Your task to perform on an android device: find which apps use the phone's location Image 0: 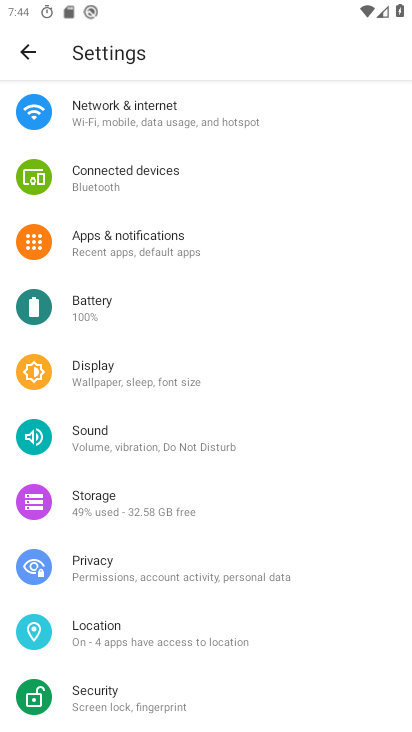
Step 0: press home button
Your task to perform on an android device: find which apps use the phone's location Image 1: 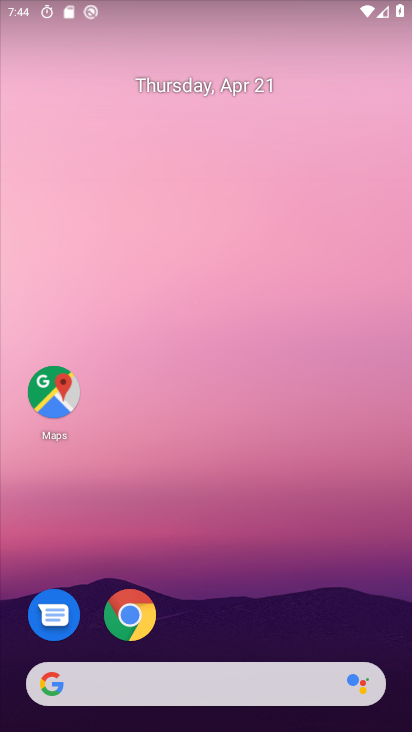
Step 1: drag from (136, 679) to (219, 78)
Your task to perform on an android device: find which apps use the phone's location Image 2: 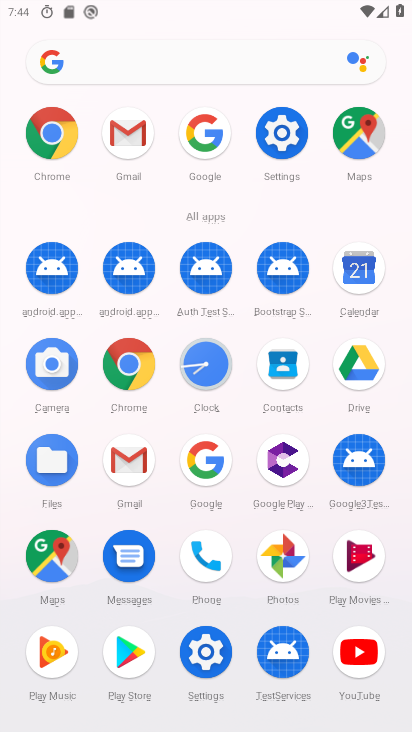
Step 2: click (276, 140)
Your task to perform on an android device: find which apps use the phone's location Image 3: 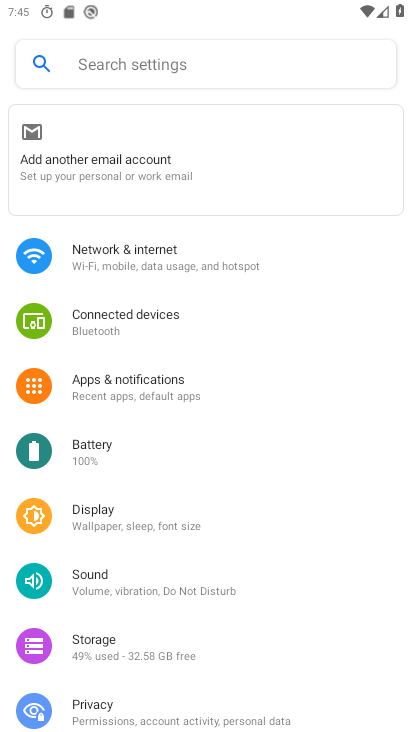
Step 3: drag from (186, 618) to (271, 210)
Your task to perform on an android device: find which apps use the phone's location Image 4: 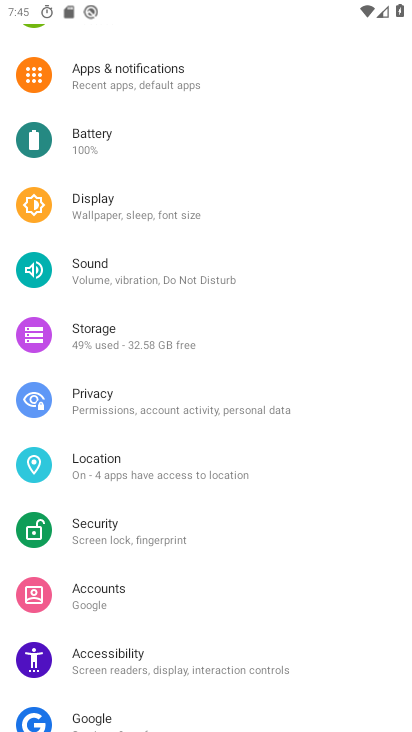
Step 4: click (122, 462)
Your task to perform on an android device: find which apps use the phone's location Image 5: 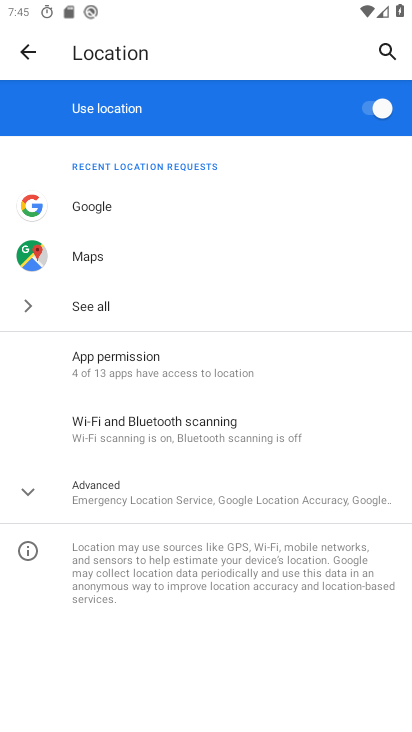
Step 5: click (143, 359)
Your task to perform on an android device: find which apps use the phone's location Image 6: 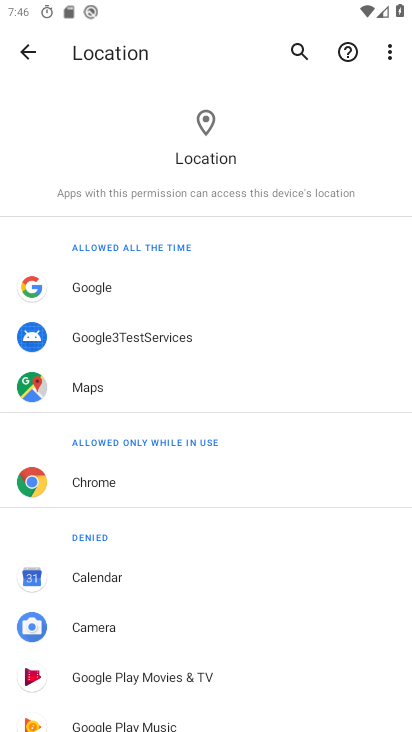
Step 6: drag from (164, 652) to (321, 204)
Your task to perform on an android device: find which apps use the phone's location Image 7: 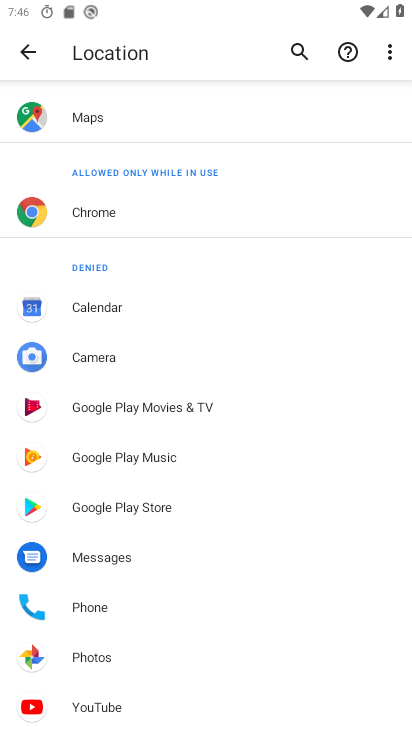
Step 7: click (95, 602)
Your task to perform on an android device: find which apps use the phone's location Image 8: 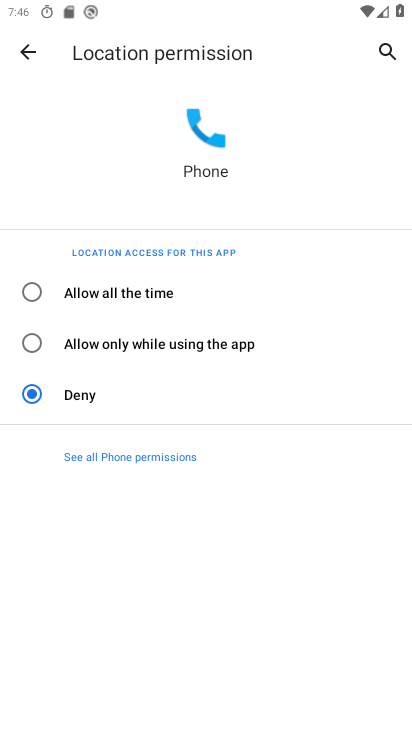
Step 8: task complete